Your task to perform on an android device: see tabs open on other devices in the chrome app Image 0: 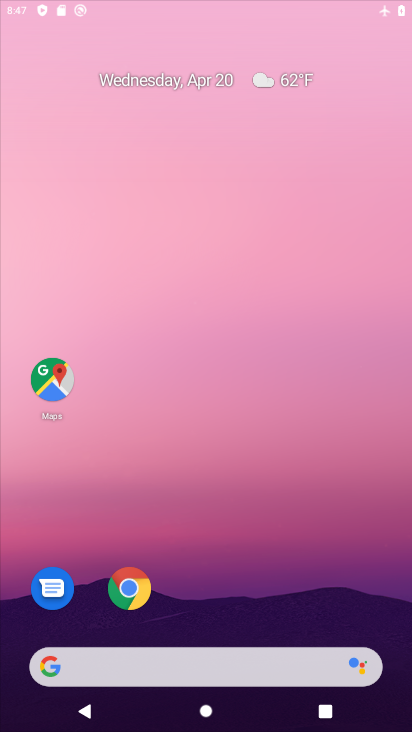
Step 0: drag from (267, 568) to (179, 127)
Your task to perform on an android device: see tabs open on other devices in the chrome app Image 1: 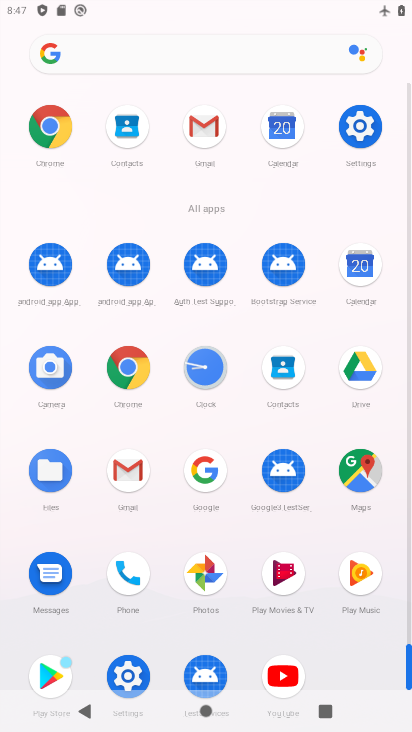
Step 1: drag from (9, 473) to (4, 314)
Your task to perform on an android device: see tabs open on other devices in the chrome app Image 2: 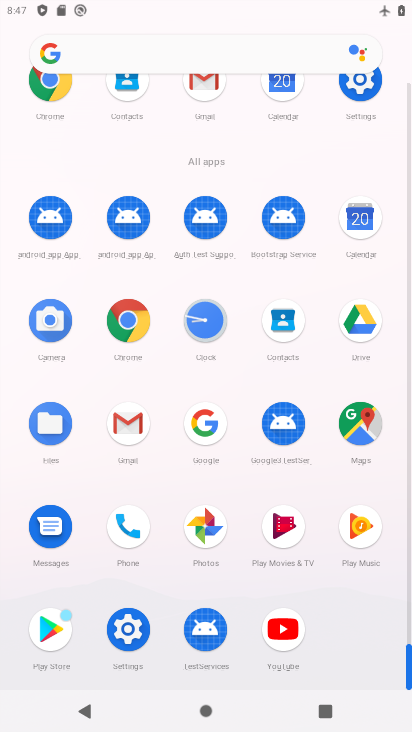
Step 2: click (127, 323)
Your task to perform on an android device: see tabs open on other devices in the chrome app Image 3: 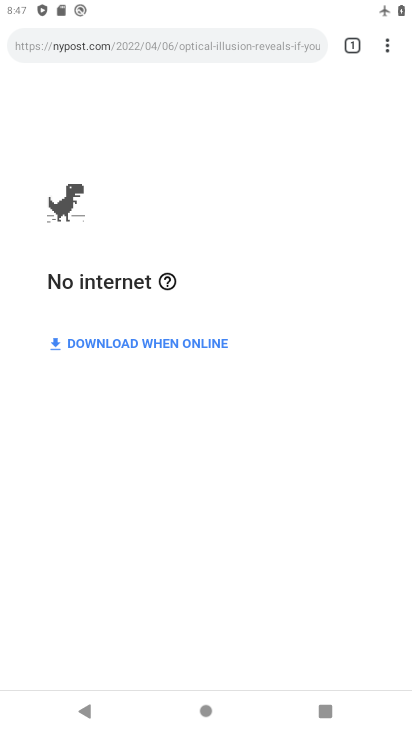
Step 3: task complete